Your task to perform on an android device: change timer sound Image 0: 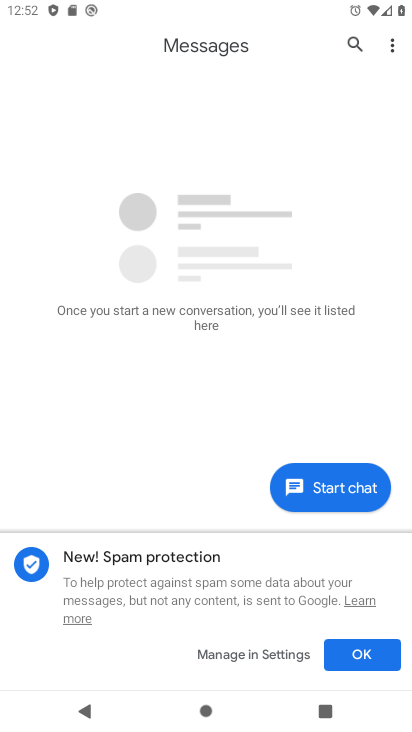
Step 0: press home button
Your task to perform on an android device: change timer sound Image 1: 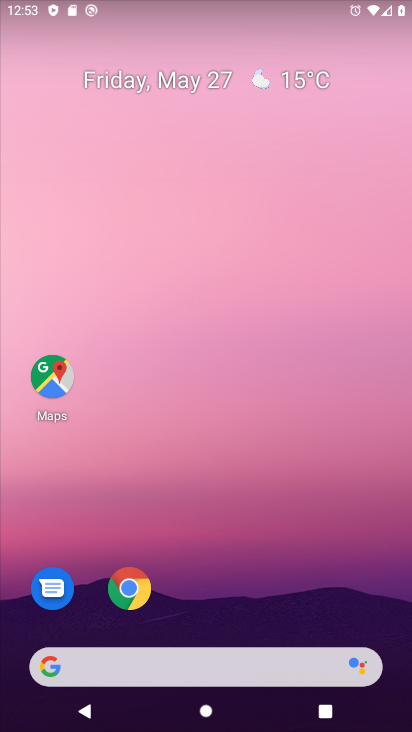
Step 1: drag from (383, 624) to (311, 141)
Your task to perform on an android device: change timer sound Image 2: 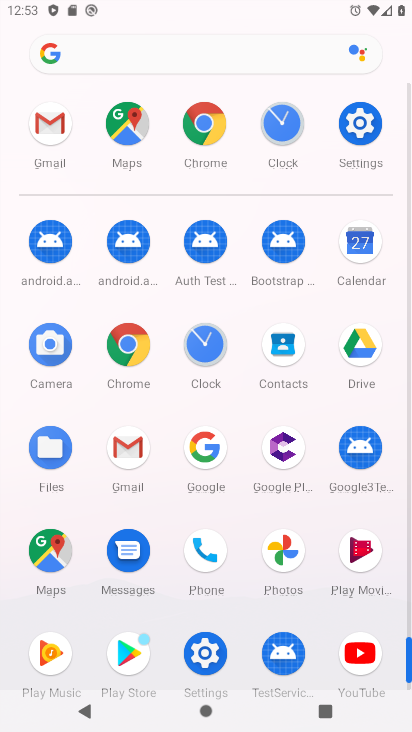
Step 2: click (205, 657)
Your task to perform on an android device: change timer sound Image 3: 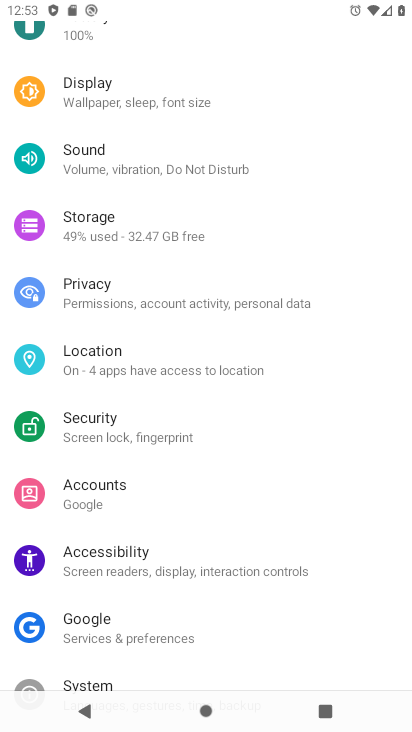
Step 3: click (92, 153)
Your task to perform on an android device: change timer sound Image 4: 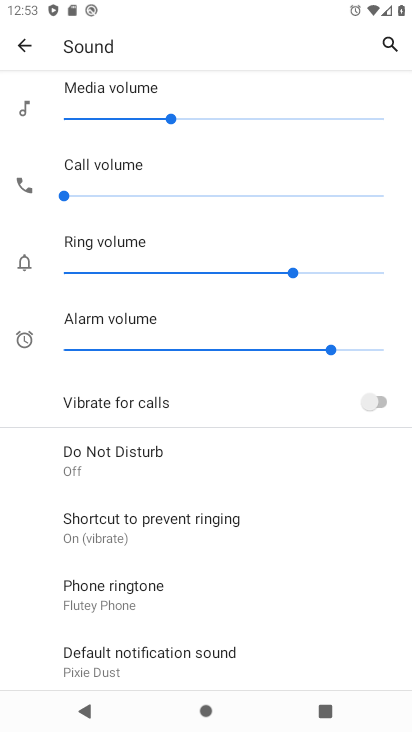
Step 4: drag from (256, 552) to (267, 228)
Your task to perform on an android device: change timer sound Image 5: 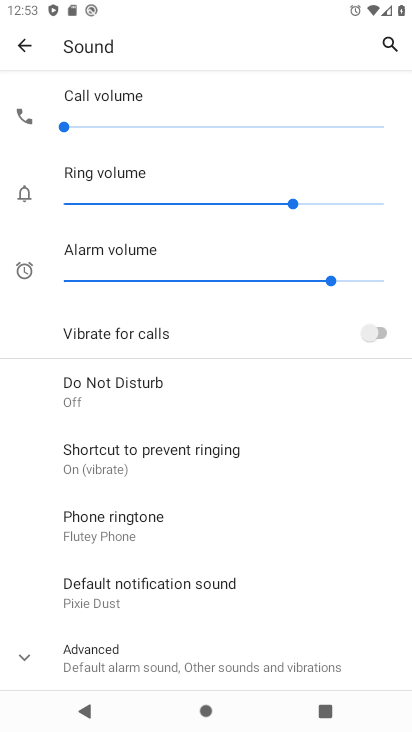
Step 5: press home button
Your task to perform on an android device: change timer sound Image 6: 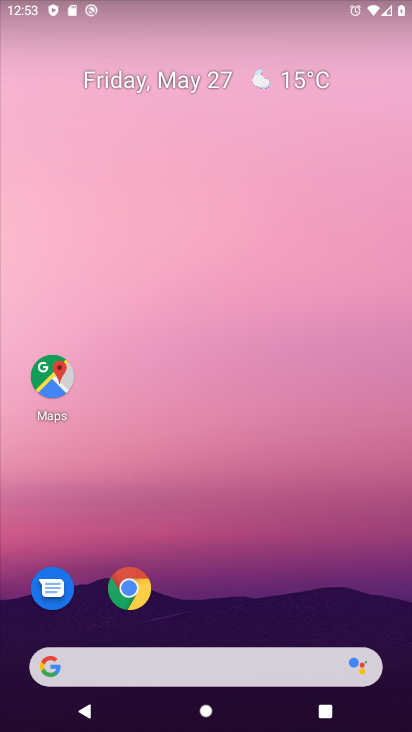
Step 6: drag from (369, 619) to (319, 154)
Your task to perform on an android device: change timer sound Image 7: 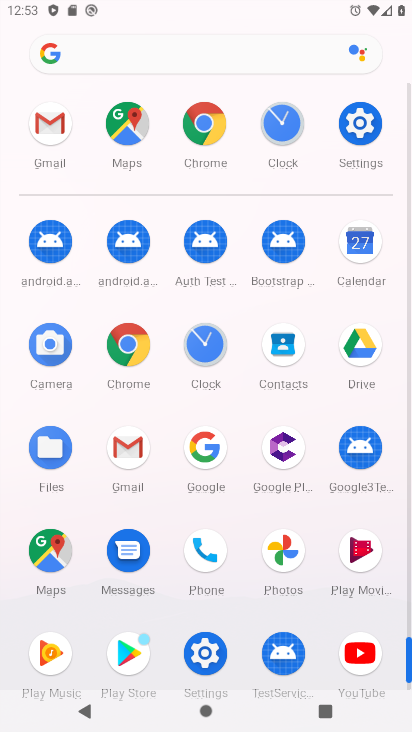
Step 7: click (205, 346)
Your task to perform on an android device: change timer sound Image 8: 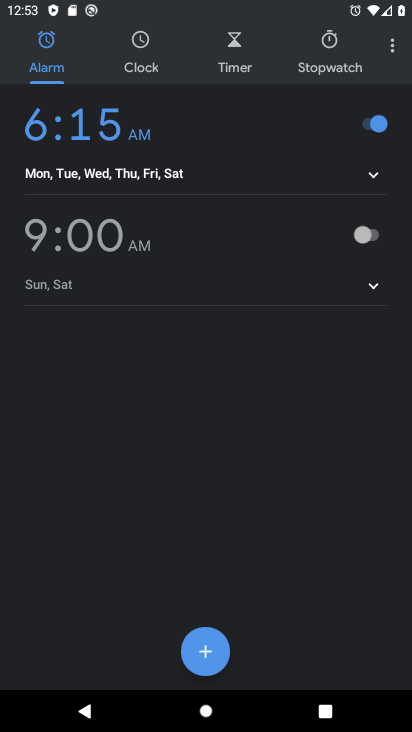
Step 8: click (392, 49)
Your task to perform on an android device: change timer sound Image 9: 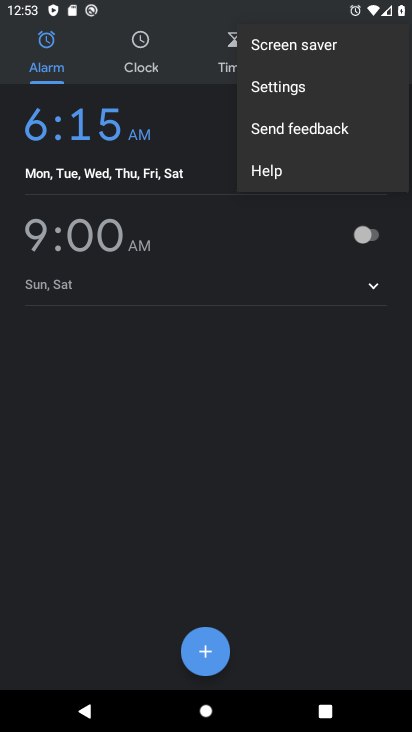
Step 9: click (272, 85)
Your task to perform on an android device: change timer sound Image 10: 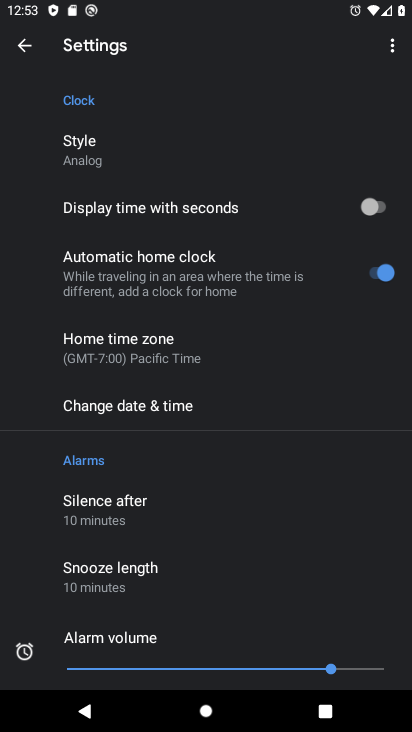
Step 10: click (286, 84)
Your task to perform on an android device: change timer sound Image 11: 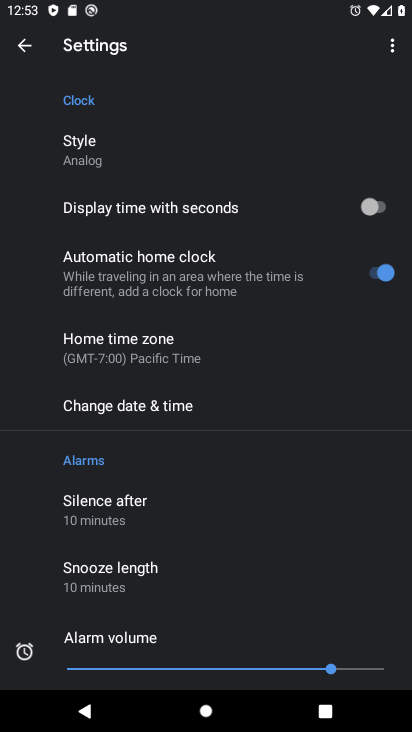
Step 11: drag from (203, 598) to (278, 152)
Your task to perform on an android device: change timer sound Image 12: 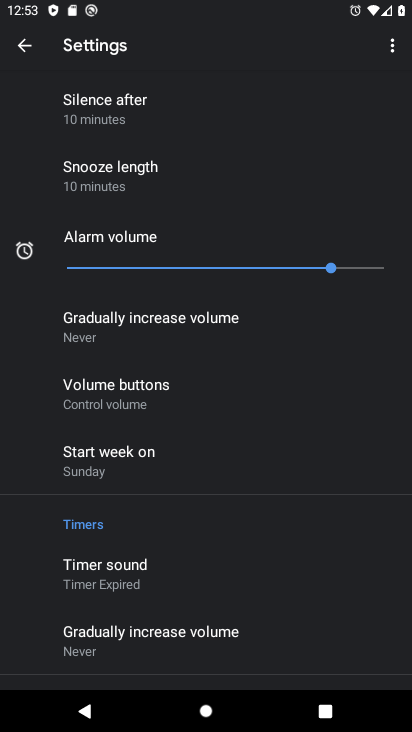
Step 12: click (116, 563)
Your task to perform on an android device: change timer sound Image 13: 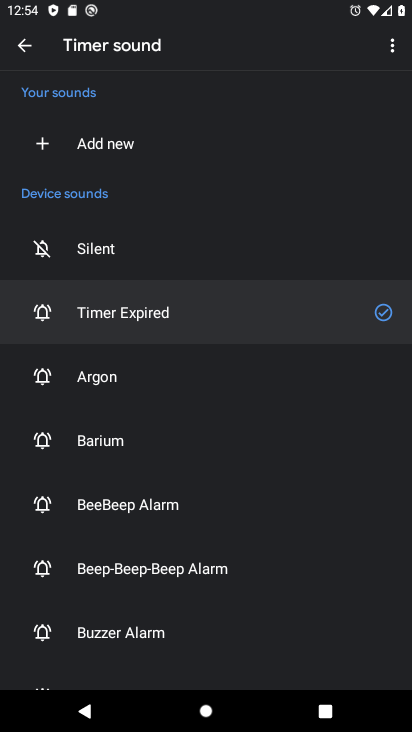
Step 13: click (129, 495)
Your task to perform on an android device: change timer sound Image 14: 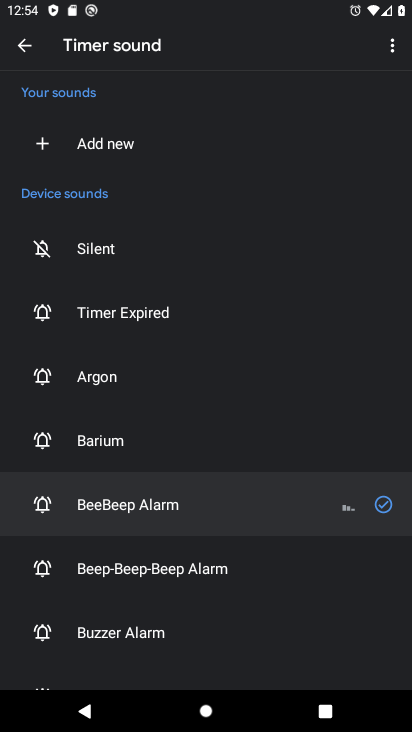
Step 14: task complete